Your task to perform on an android device: check storage Image 0: 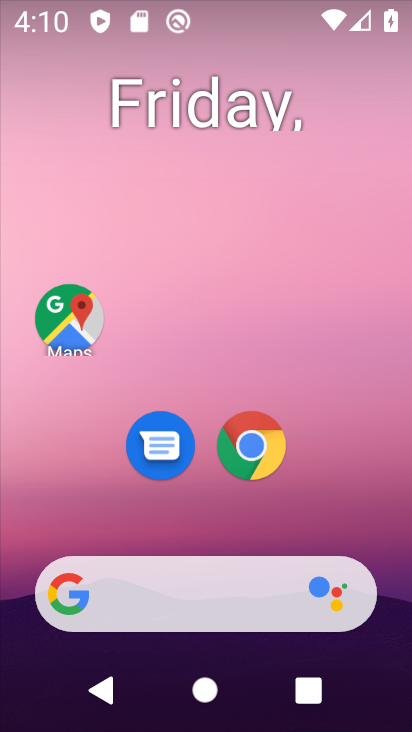
Step 0: drag from (336, 496) to (341, 72)
Your task to perform on an android device: check storage Image 1: 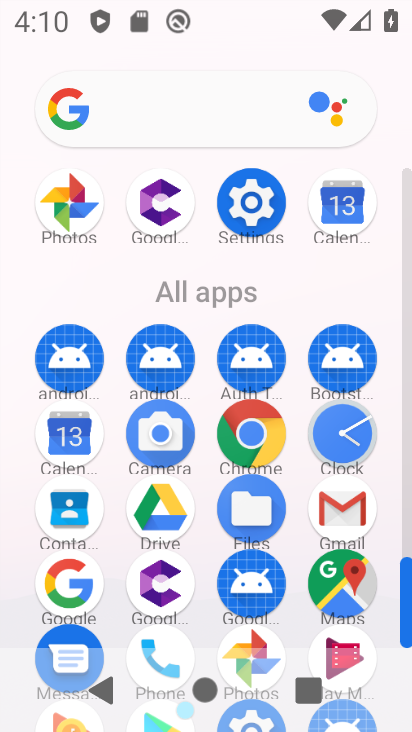
Step 1: click (252, 200)
Your task to perform on an android device: check storage Image 2: 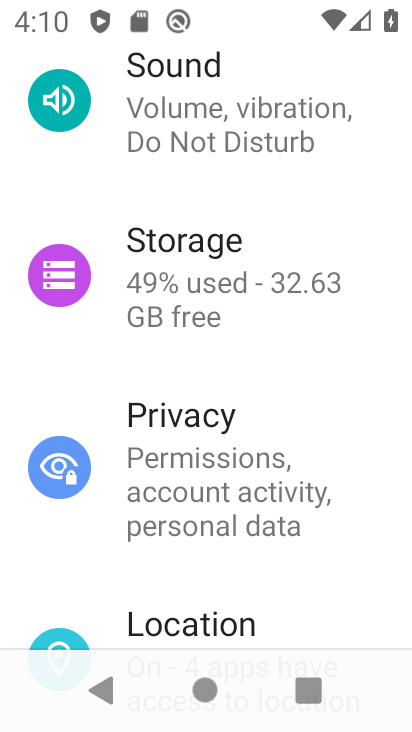
Step 2: click (187, 300)
Your task to perform on an android device: check storage Image 3: 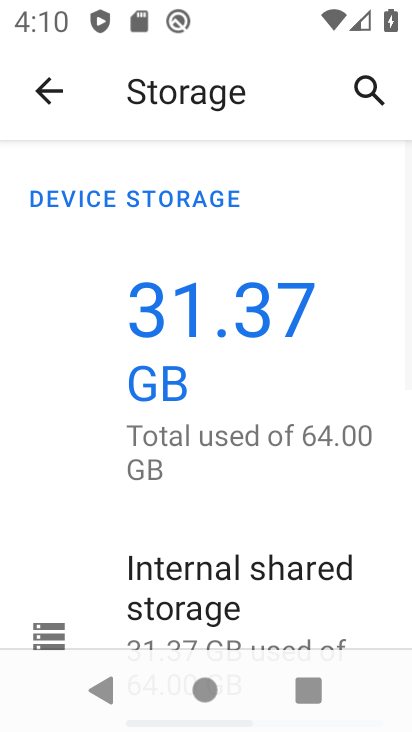
Step 3: task complete